Your task to perform on an android device: Add "razer naga" to the cart on walmart.com, then select checkout. Image 0: 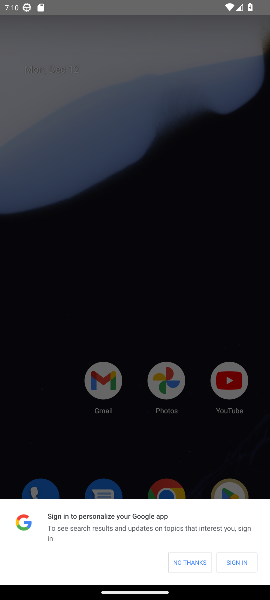
Step 0: press home button
Your task to perform on an android device: Add "razer naga" to the cart on walmart.com, then select checkout. Image 1: 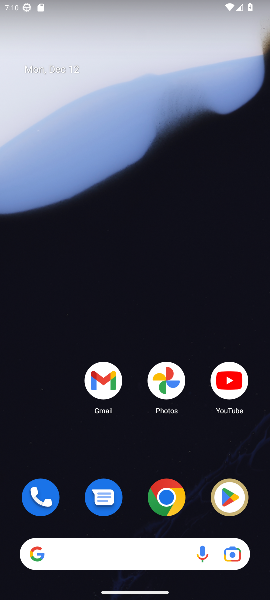
Step 1: drag from (56, 452) to (55, 3)
Your task to perform on an android device: Add "razer naga" to the cart on walmart.com, then select checkout. Image 2: 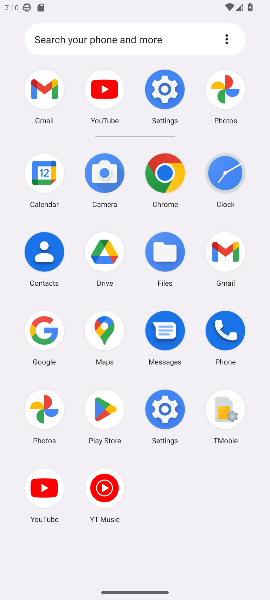
Step 2: click (39, 329)
Your task to perform on an android device: Add "razer naga" to the cart on walmart.com, then select checkout. Image 3: 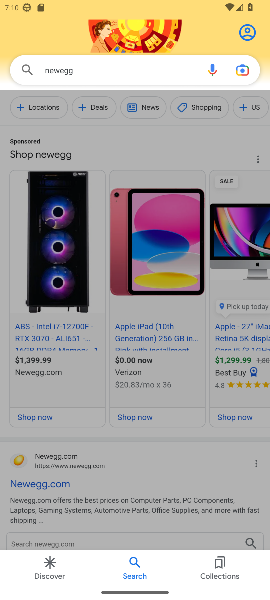
Step 3: drag from (91, 504) to (106, 212)
Your task to perform on an android device: Add "razer naga" to the cart on walmart.com, then select checkout. Image 4: 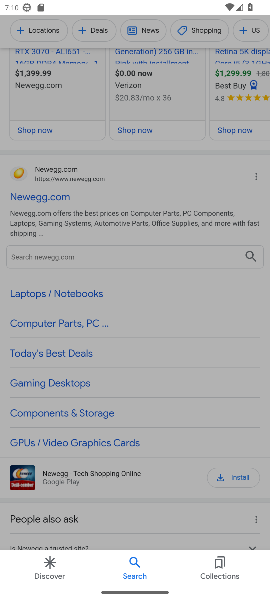
Step 4: click (27, 196)
Your task to perform on an android device: Add "razer naga" to the cart on walmart.com, then select checkout. Image 5: 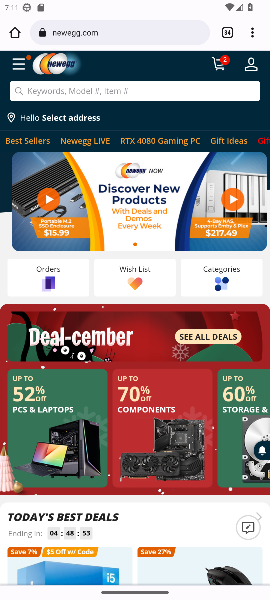
Step 5: click (49, 88)
Your task to perform on an android device: Add "razer naga" to the cart on walmart.com, then select checkout. Image 6: 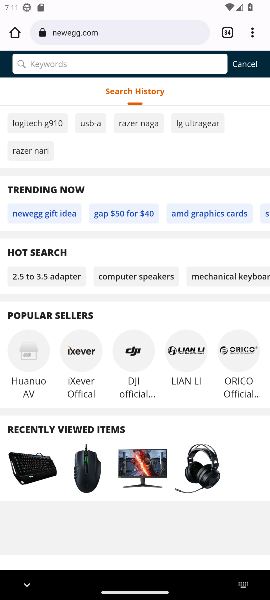
Step 6: press home button
Your task to perform on an android device: Add "razer naga" to the cart on walmart.com, then select checkout. Image 7: 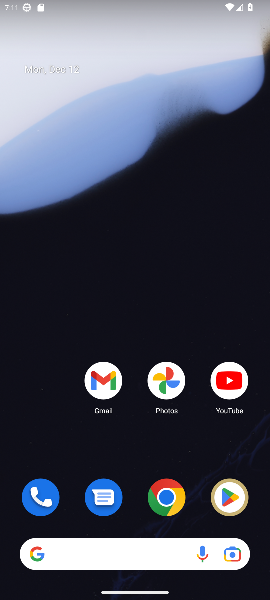
Step 7: drag from (61, 416) to (53, 61)
Your task to perform on an android device: Add "razer naga" to the cart on walmart.com, then select checkout. Image 8: 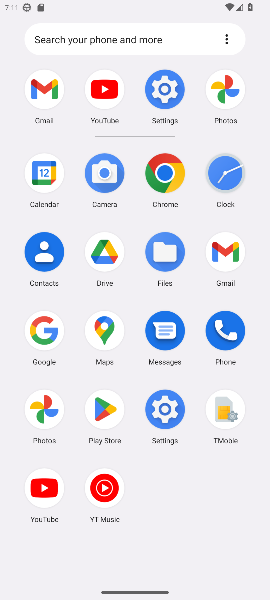
Step 8: click (34, 339)
Your task to perform on an android device: Add "razer naga" to the cart on walmart.com, then select checkout. Image 9: 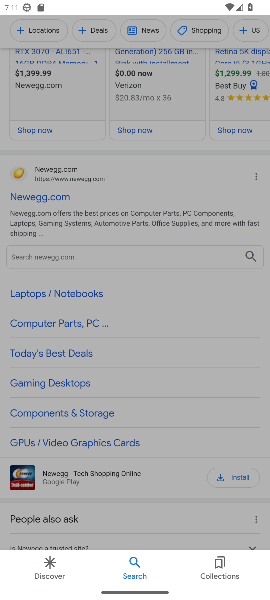
Step 9: press back button
Your task to perform on an android device: Add "razer naga" to the cart on walmart.com, then select checkout. Image 10: 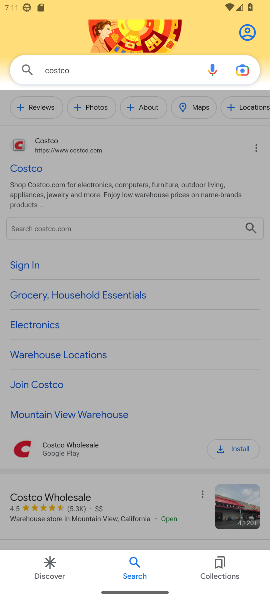
Step 10: click (113, 63)
Your task to perform on an android device: Add "razer naga" to the cart on walmart.com, then select checkout. Image 11: 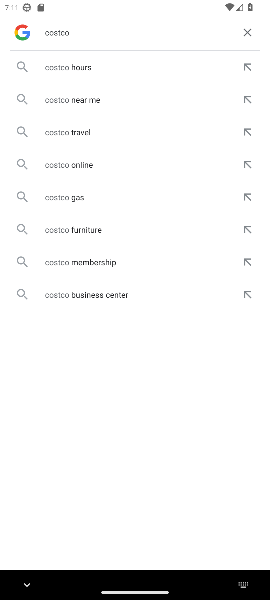
Step 11: click (244, 30)
Your task to perform on an android device: Add "razer naga" to the cart on walmart.com, then select checkout. Image 12: 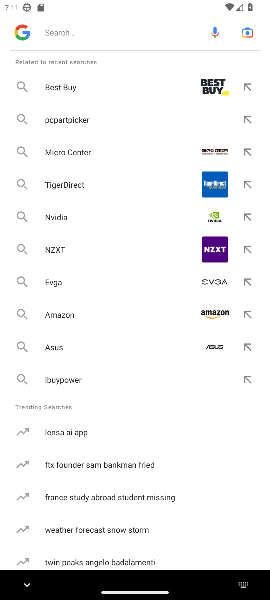
Step 12: type "walmart.com"
Your task to perform on an android device: Add "razer naga" to the cart on walmart.com, then select checkout. Image 13: 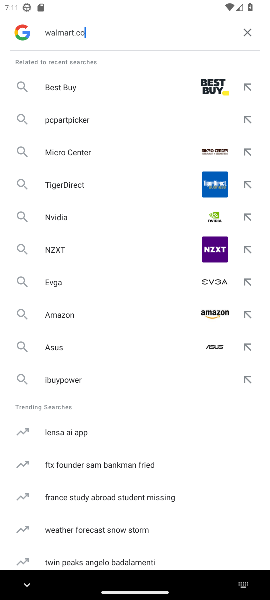
Step 13: press enter
Your task to perform on an android device: Add "razer naga" to the cart on walmart.com, then select checkout. Image 14: 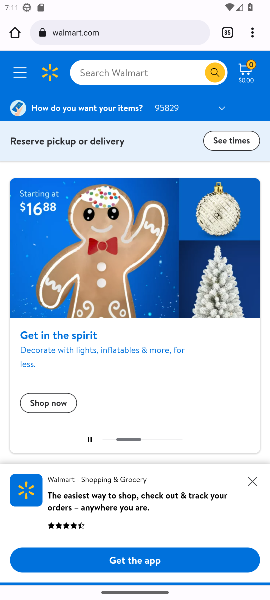
Step 14: click (82, 72)
Your task to perform on an android device: Add "razer naga" to the cart on walmart.com, then select checkout. Image 15: 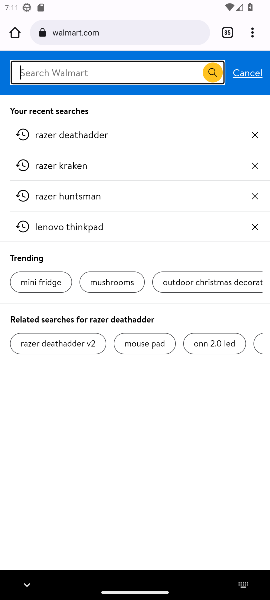
Step 15: type "razer naga"
Your task to perform on an android device: Add "razer naga" to the cart on walmart.com, then select checkout. Image 16: 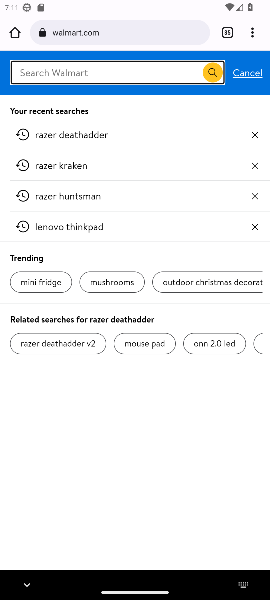
Step 16: press enter
Your task to perform on an android device: Add "razer naga" to the cart on walmart.com, then select checkout. Image 17: 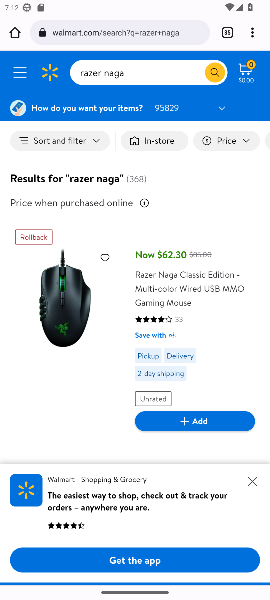
Step 17: click (183, 420)
Your task to perform on an android device: Add "razer naga" to the cart on walmart.com, then select checkout. Image 18: 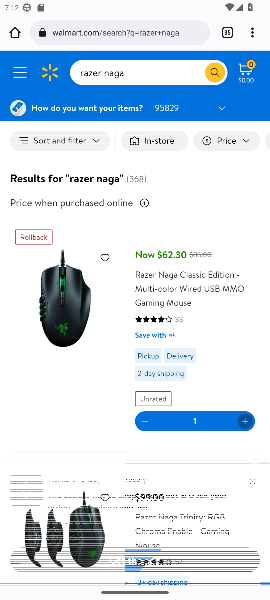
Step 18: click (242, 70)
Your task to perform on an android device: Add "razer naga" to the cart on walmart.com, then select checkout. Image 19: 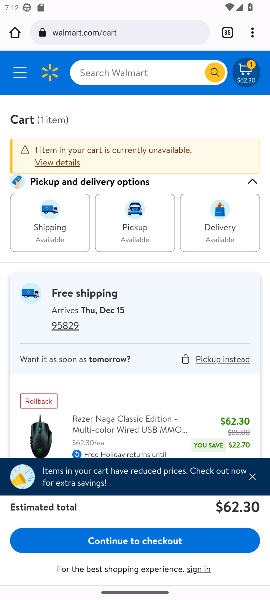
Step 19: click (106, 540)
Your task to perform on an android device: Add "razer naga" to the cart on walmart.com, then select checkout. Image 20: 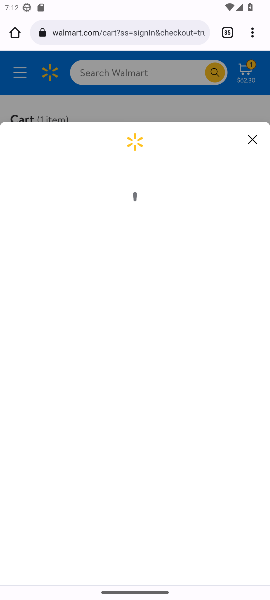
Step 20: task complete